Your task to perform on an android device: Open the map Image 0: 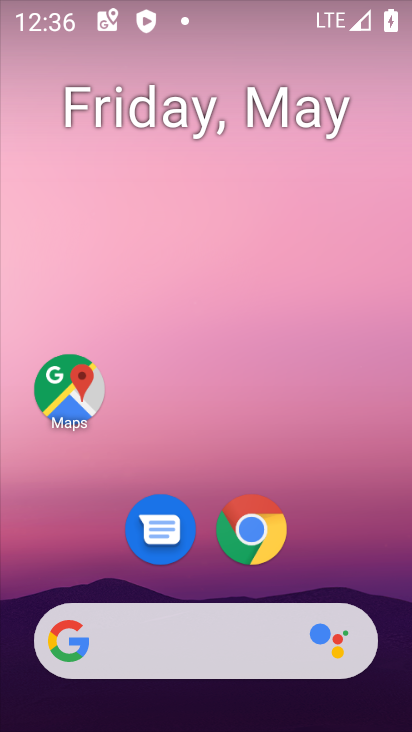
Step 0: click (72, 396)
Your task to perform on an android device: Open the map Image 1: 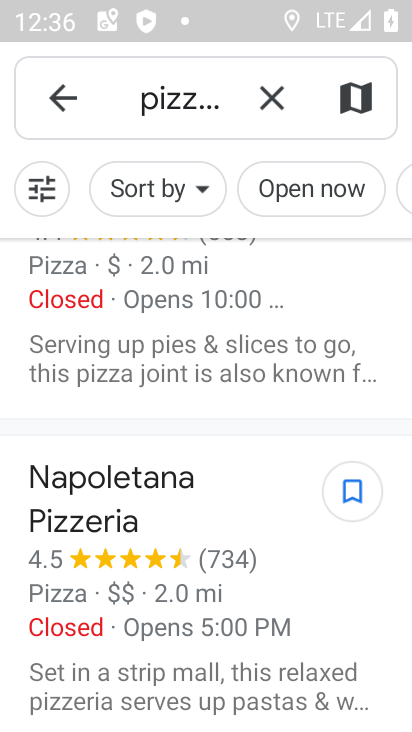
Step 1: task complete